Your task to perform on an android device: Go to calendar. Show me events next week Image 0: 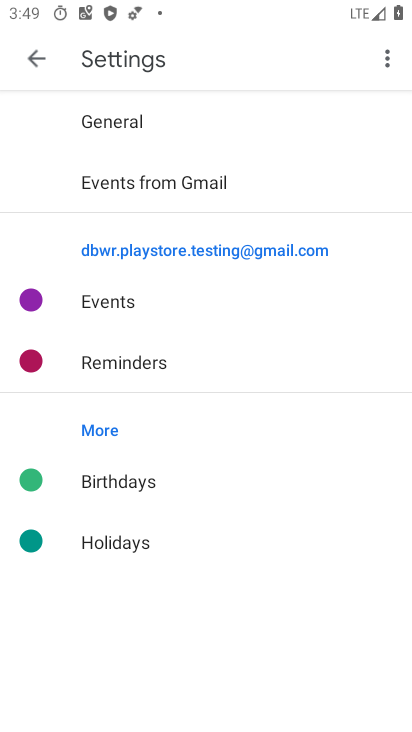
Step 0: press home button
Your task to perform on an android device: Go to calendar. Show me events next week Image 1: 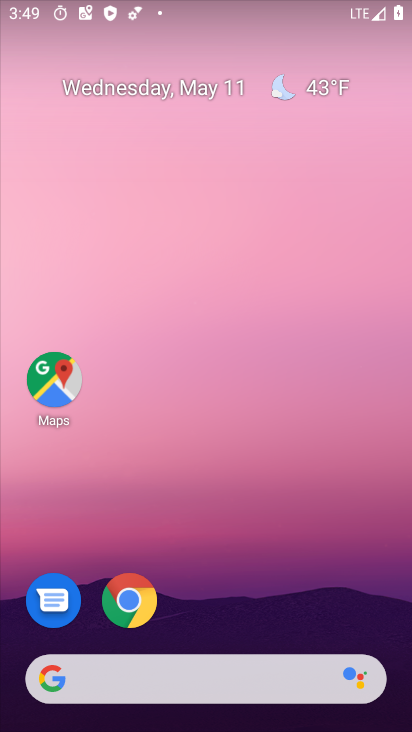
Step 1: drag from (338, 472) to (348, 6)
Your task to perform on an android device: Go to calendar. Show me events next week Image 2: 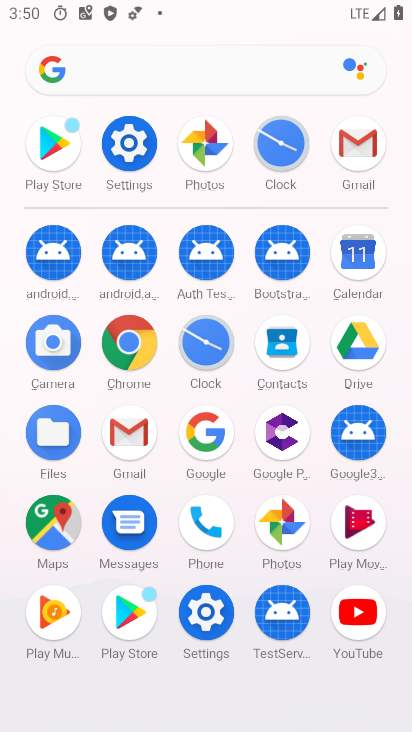
Step 2: click (359, 248)
Your task to perform on an android device: Go to calendar. Show me events next week Image 3: 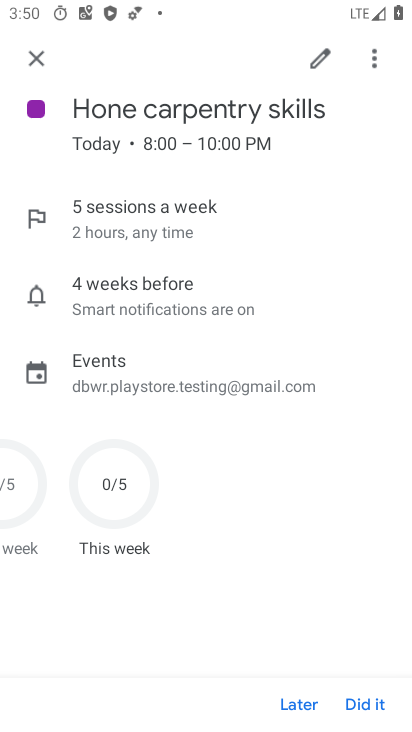
Step 3: click (29, 59)
Your task to perform on an android device: Go to calendar. Show me events next week Image 4: 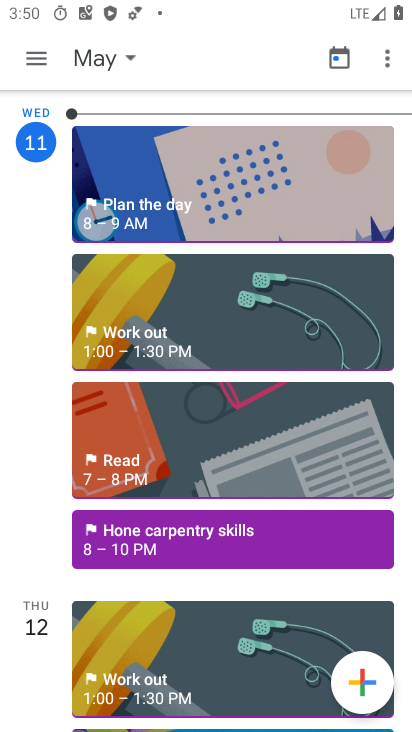
Step 4: click (40, 62)
Your task to perform on an android device: Go to calendar. Show me events next week Image 5: 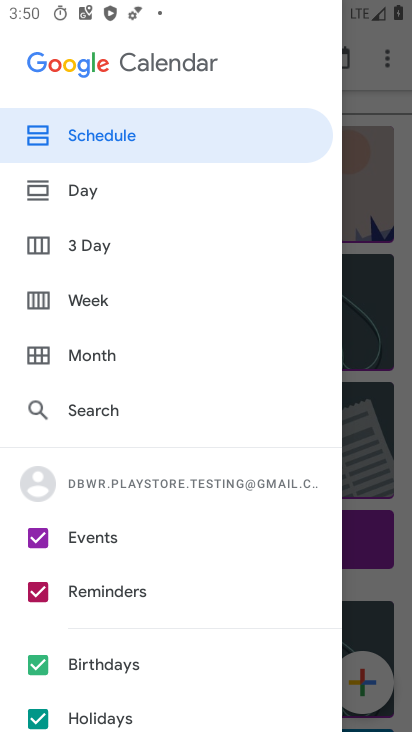
Step 5: click (44, 591)
Your task to perform on an android device: Go to calendar. Show me events next week Image 6: 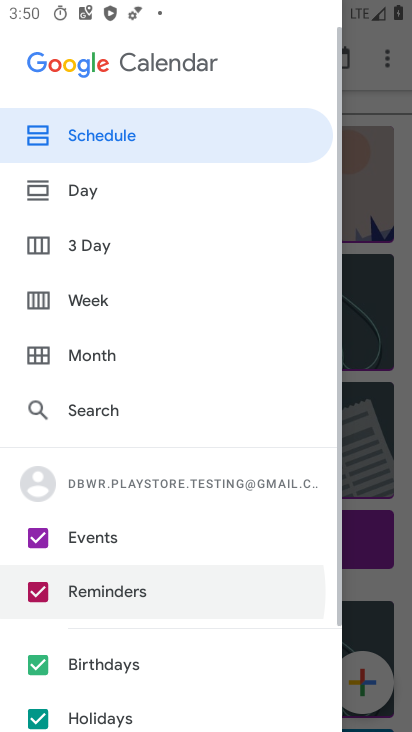
Step 6: click (28, 663)
Your task to perform on an android device: Go to calendar. Show me events next week Image 7: 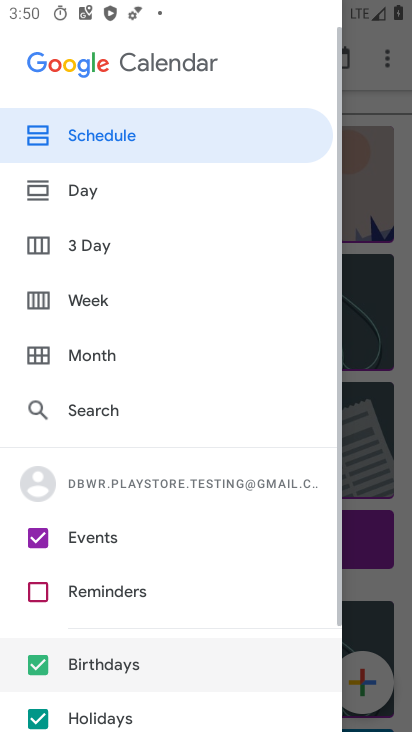
Step 7: click (26, 719)
Your task to perform on an android device: Go to calendar. Show me events next week Image 8: 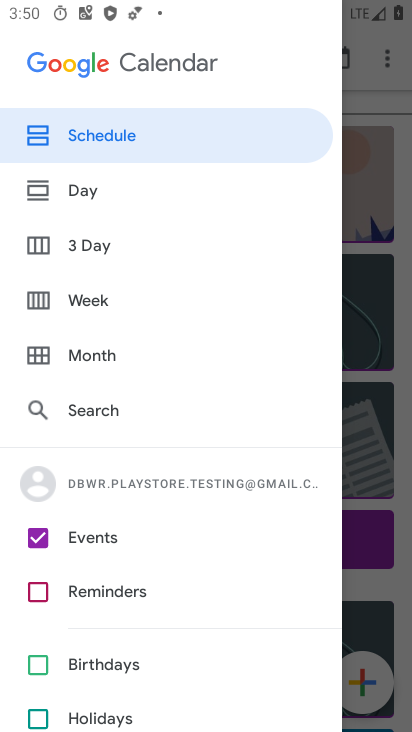
Step 8: click (42, 296)
Your task to perform on an android device: Go to calendar. Show me events next week Image 9: 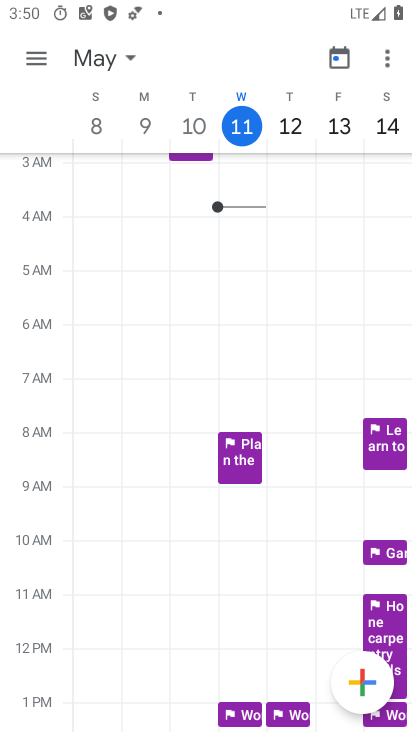
Step 9: task complete